Your task to perform on an android device: check android version Image 0: 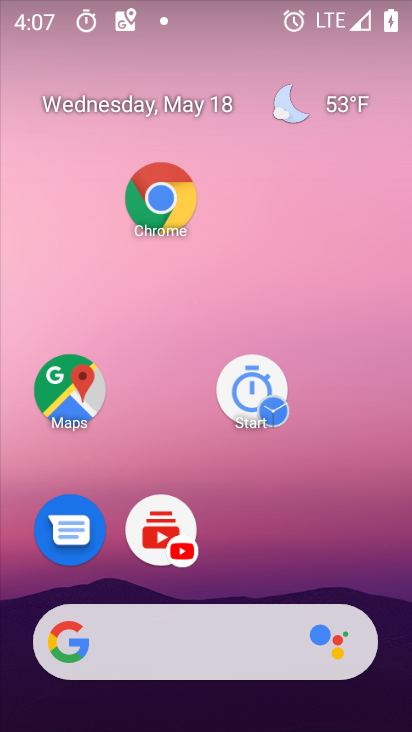
Step 0: drag from (263, 593) to (222, 106)
Your task to perform on an android device: check android version Image 1: 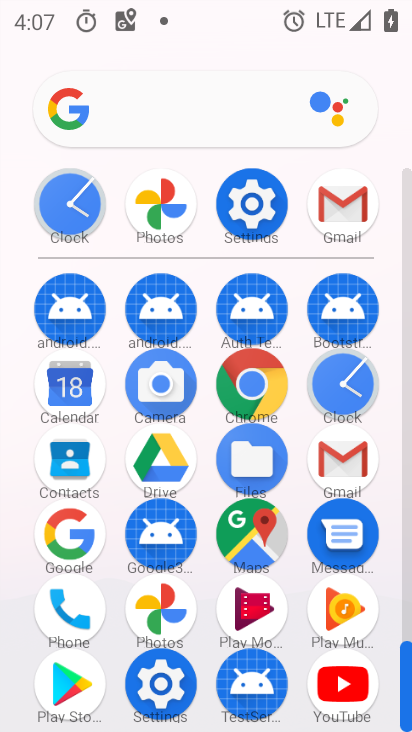
Step 1: click (252, 211)
Your task to perform on an android device: check android version Image 2: 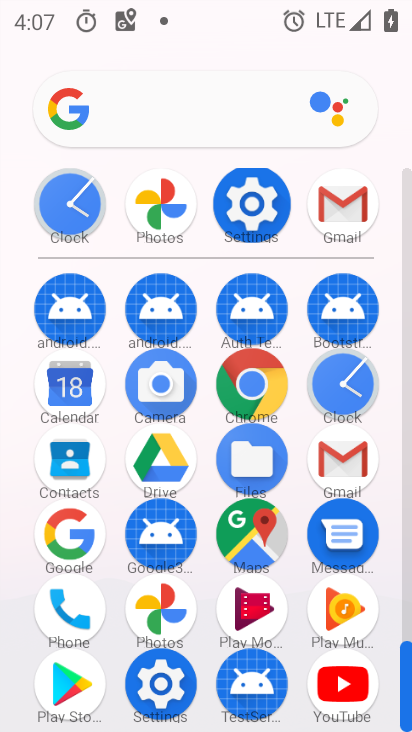
Step 2: click (252, 211)
Your task to perform on an android device: check android version Image 3: 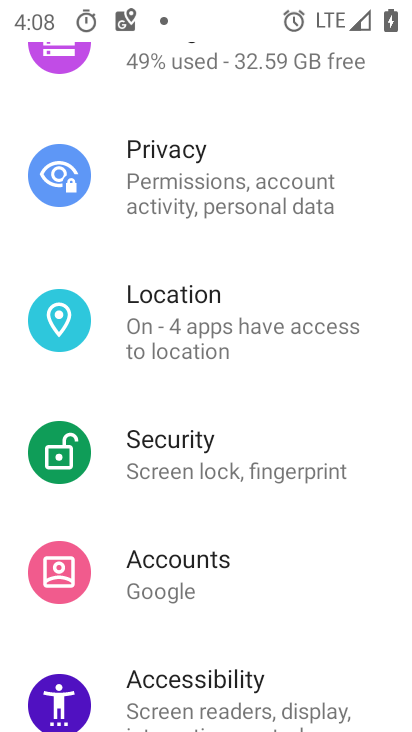
Step 3: drag from (216, 512) to (179, 130)
Your task to perform on an android device: check android version Image 4: 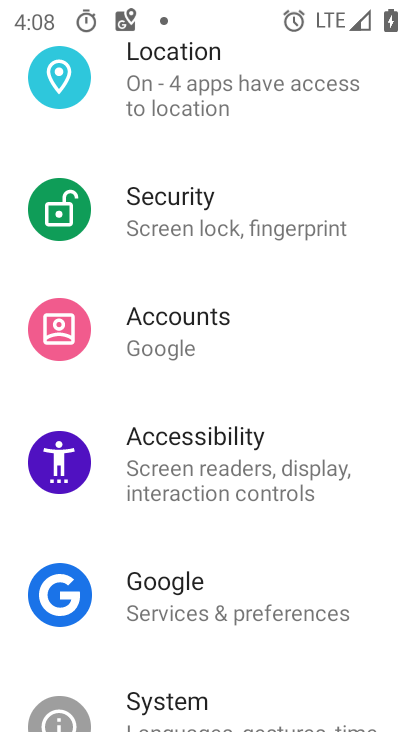
Step 4: drag from (194, 247) to (181, 80)
Your task to perform on an android device: check android version Image 5: 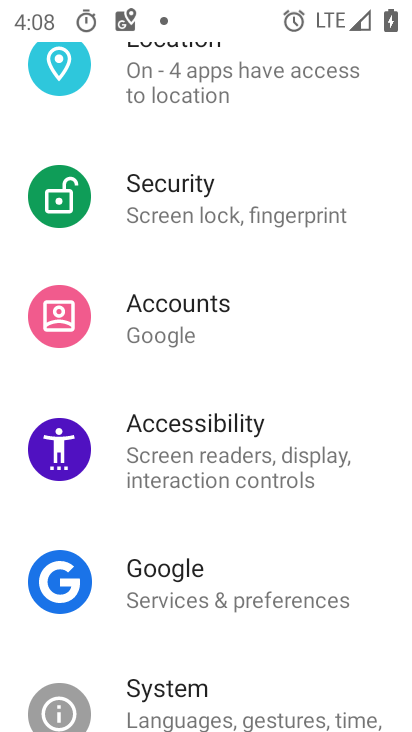
Step 5: drag from (196, 422) to (184, 88)
Your task to perform on an android device: check android version Image 6: 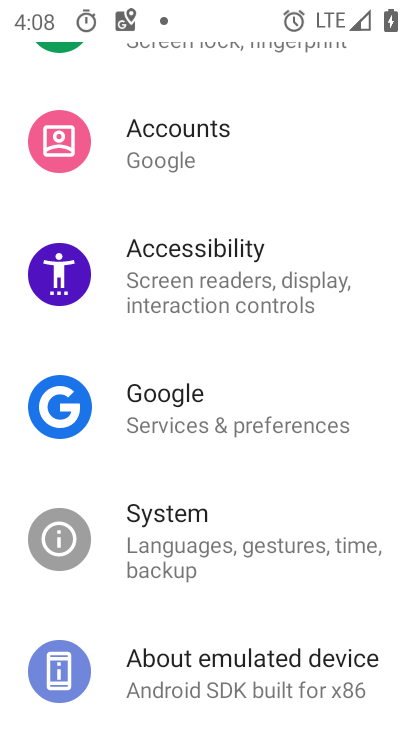
Step 6: drag from (283, 338) to (283, 174)
Your task to perform on an android device: check android version Image 7: 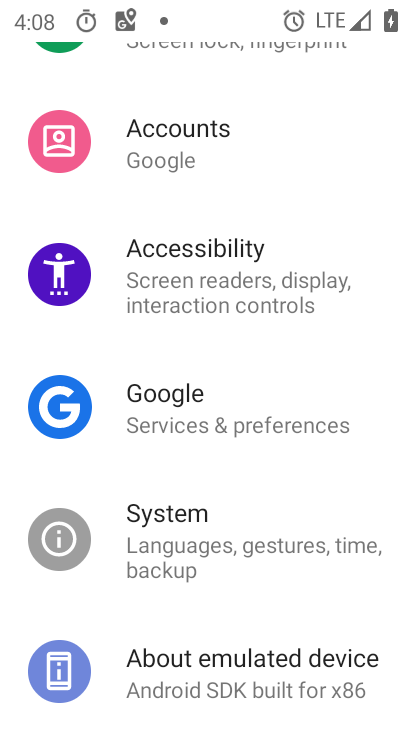
Step 7: click (229, 681)
Your task to perform on an android device: check android version Image 8: 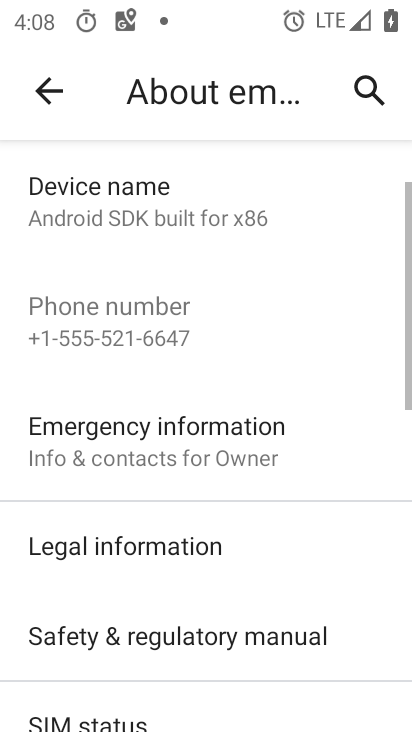
Step 8: task complete